Your task to perform on an android device: clear all cookies in the chrome app Image 0: 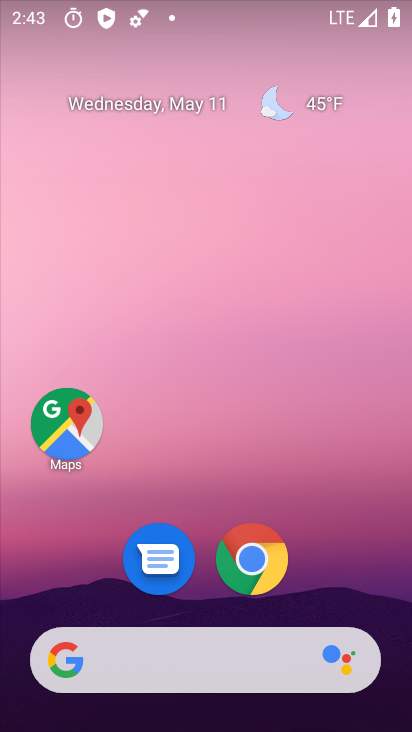
Step 0: click (252, 559)
Your task to perform on an android device: clear all cookies in the chrome app Image 1: 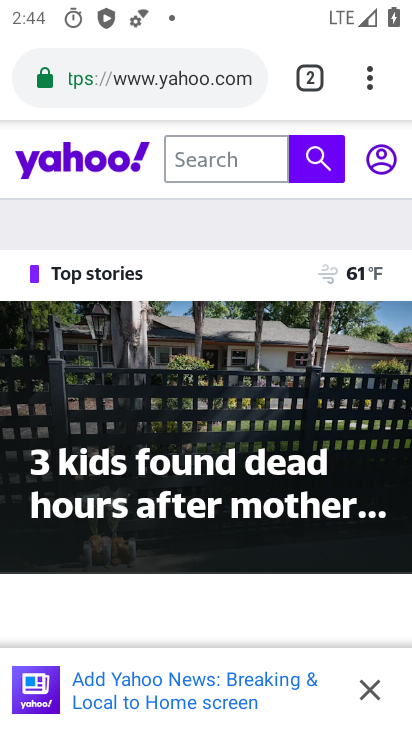
Step 1: click (375, 87)
Your task to perform on an android device: clear all cookies in the chrome app Image 2: 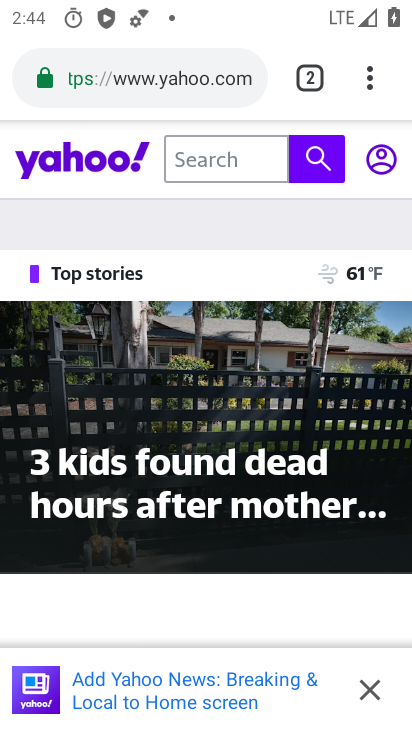
Step 2: click (368, 76)
Your task to perform on an android device: clear all cookies in the chrome app Image 3: 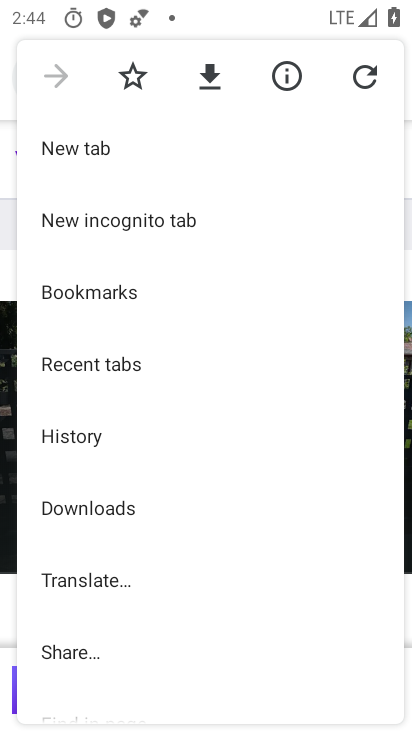
Step 3: click (105, 434)
Your task to perform on an android device: clear all cookies in the chrome app Image 4: 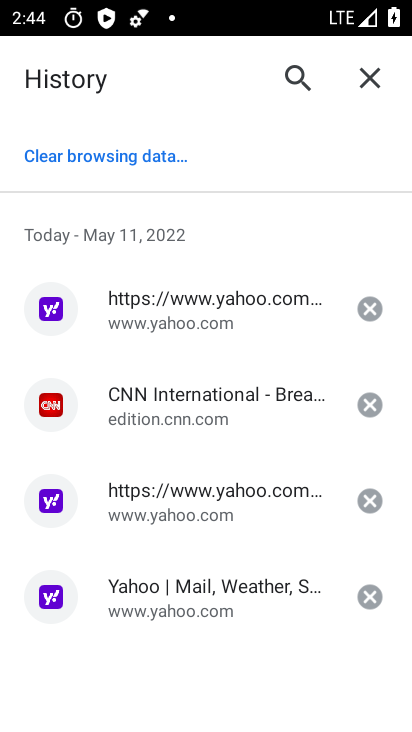
Step 4: click (114, 150)
Your task to perform on an android device: clear all cookies in the chrome app Image 5: 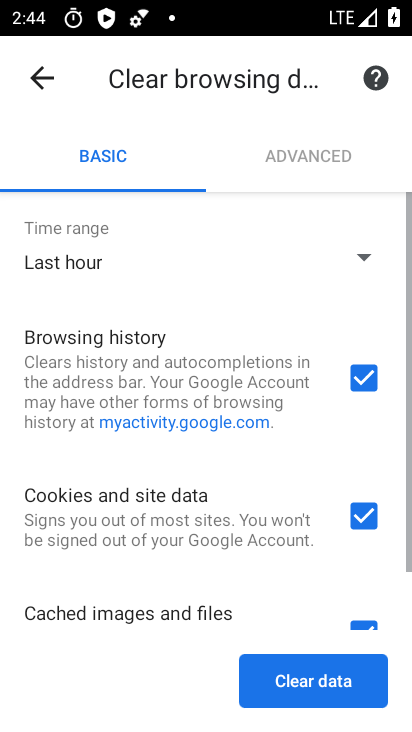
Step 5: click (306, 691)
Your task to perform on an android device: clear all cookies in the chrome app Image 6: 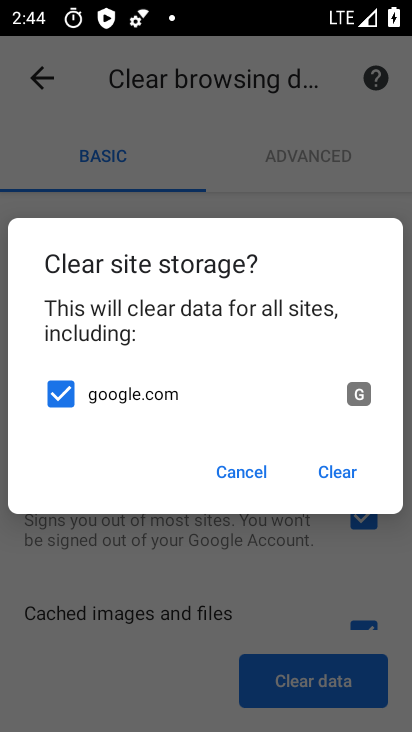
Step 6: click (336, 470)
Your task to perform on an android device: clear all cookies in the chrome app Image 7: 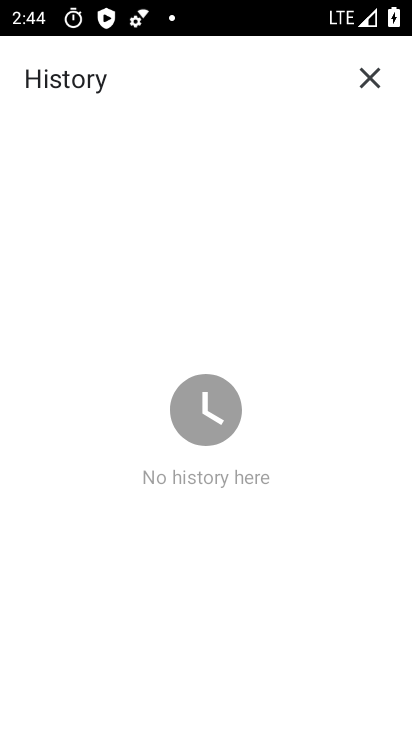
Step 7: task complete